Your task to perform on an android device: toggle notification dots Image 0: 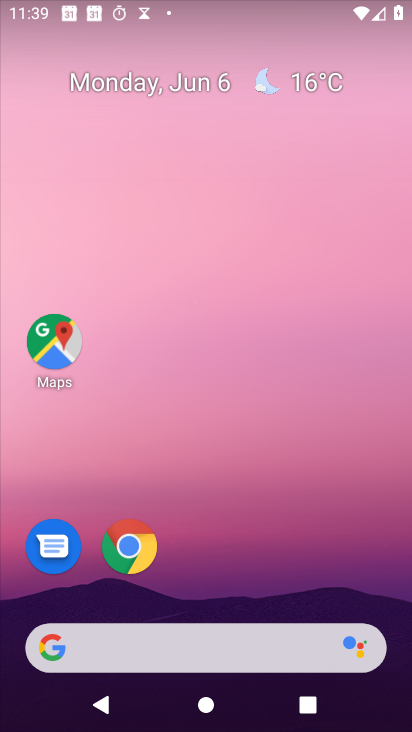
Step 0: drag from (208, 596) to (281, 138)
Your task to perform on an android device: toggle notification dots Image 1: 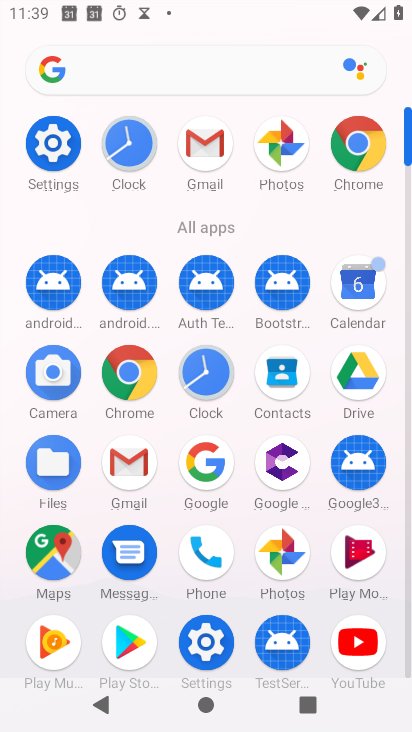
Step 1: click (45, 153)
Your task to perform on an android device: toggle notification dots Image 2: 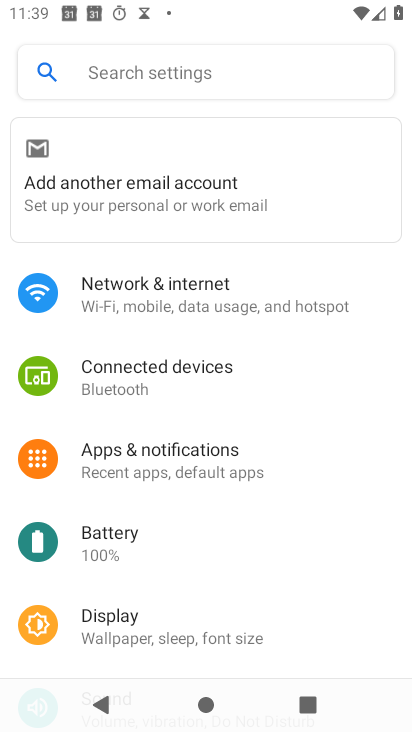
Step 2: click (173, 462)
Your task to perform on an android device: toggle notification dots Image 3: 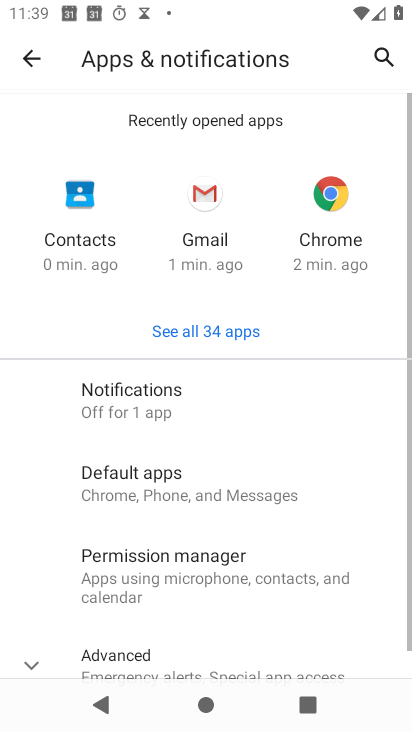
Step 3: click (161, 428)
Your task to perform on an android device: toggle notification dots Image 4: 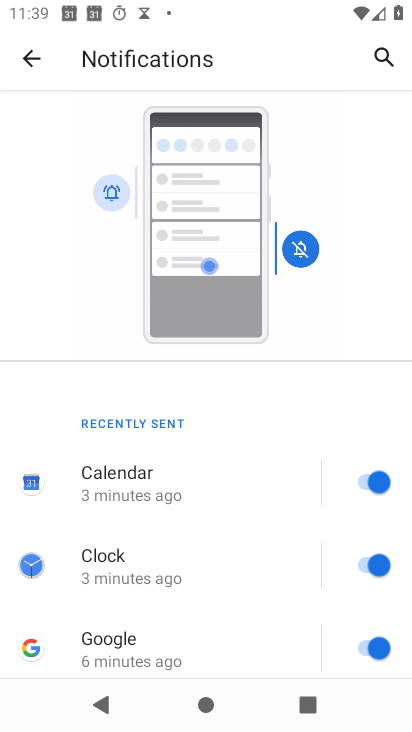
Step 4: drag from (179, 608) to (209, 319)
Your task to perform on an android device: toggle notification dots Image 5: 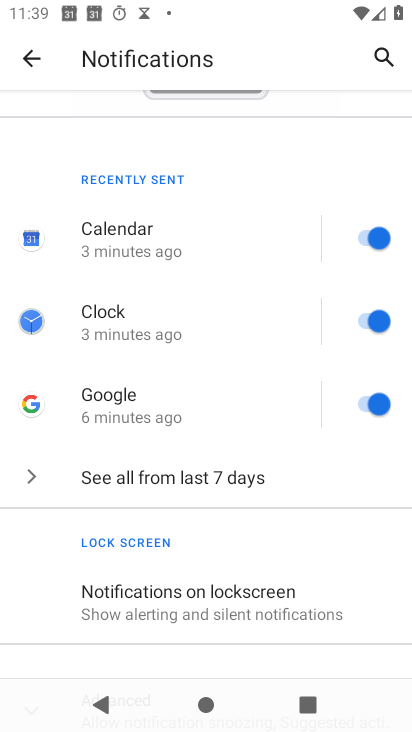
Step 5: drag from (188, 601) to (240, 342)
Your task to perform on an android device: toggle notification dots Image 6: 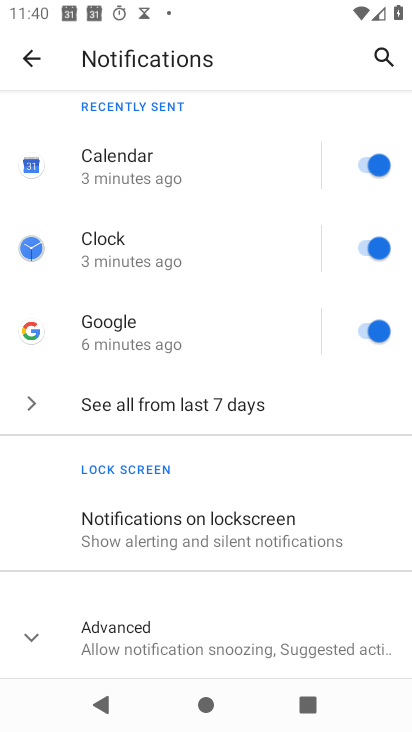
Step 6: click (179, 649)
Your task to perform on an android device: toggle notification dots Image 7: 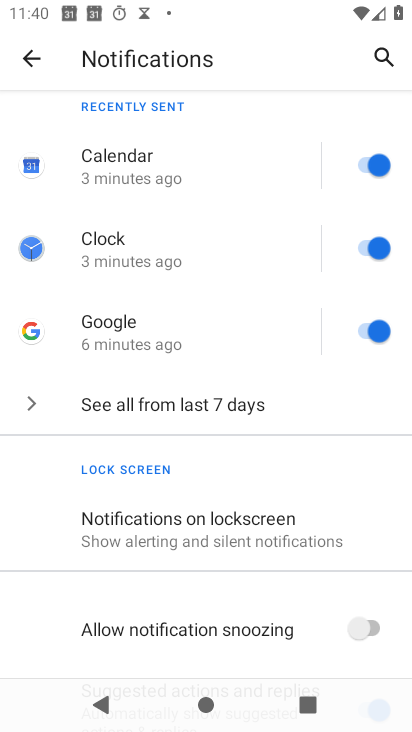
Step 7: drag from (197, 584) to (229, 389)
Your task to perform on an android device: toggle notification dots Image 8: 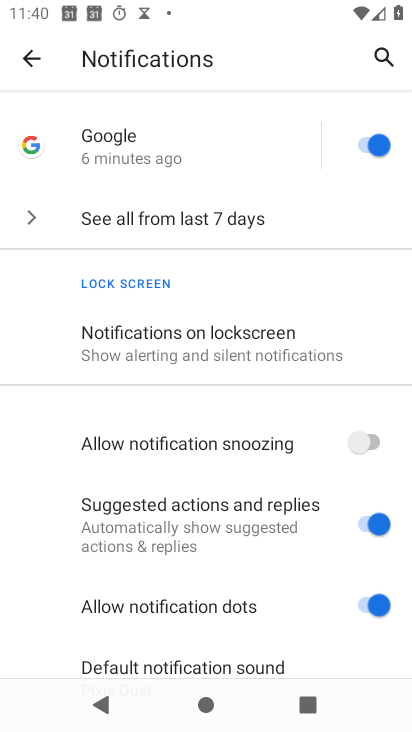
Step 8: click (344, 640)
Your task to perform on an android device: toggle notification dots Image 9: 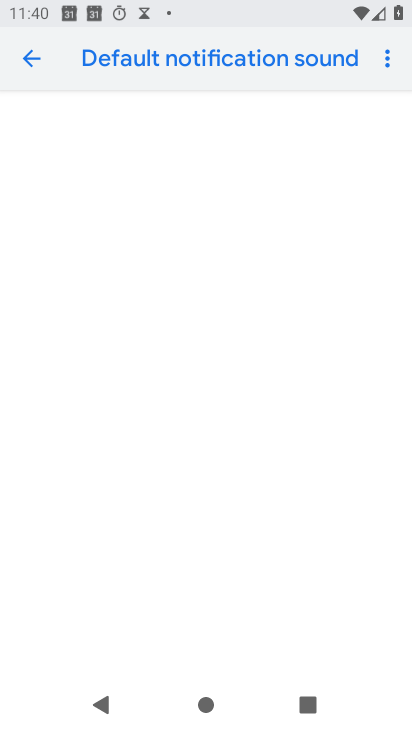
Step 9: click (37, 54)
Your task to perform on an android device: toggle notification dots Image 10: 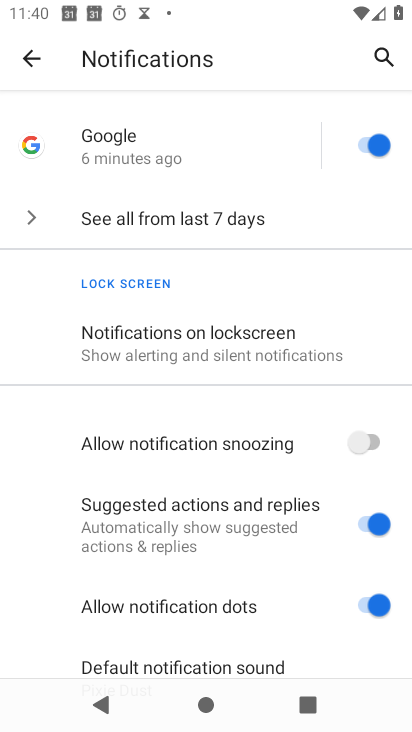
Step 10: click (357, 601)
Your task to perform on an android device: toggle notification dots Image 11: 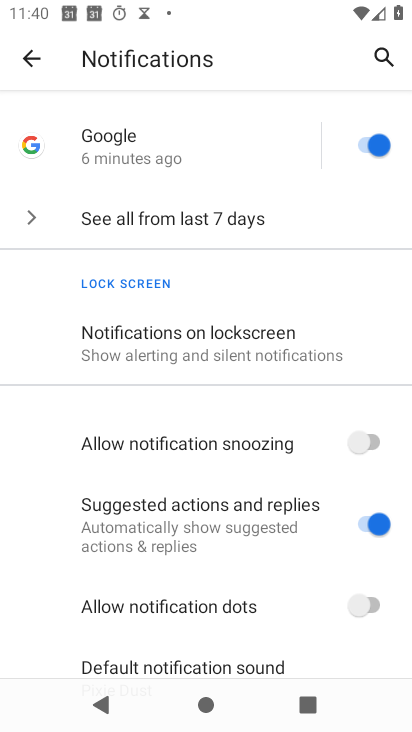
Step 11: task complete